Your task to perform on an android device: add a contact in the contacts app Image 0: 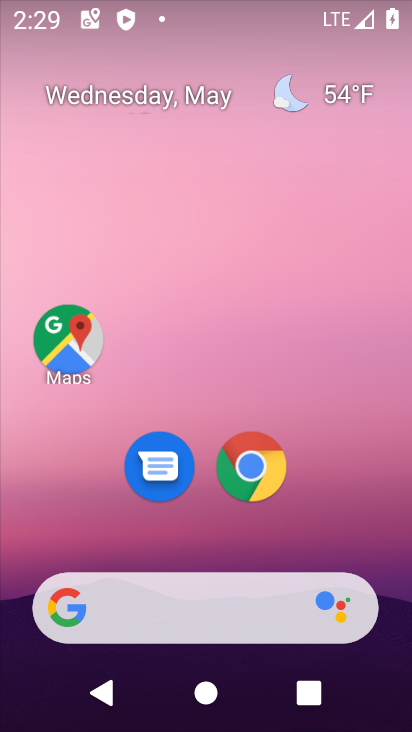
Step 0: drag from (375, 539) to (335, 261)
Your task to perform on an android device: add a contact in the contacts app Image 1: 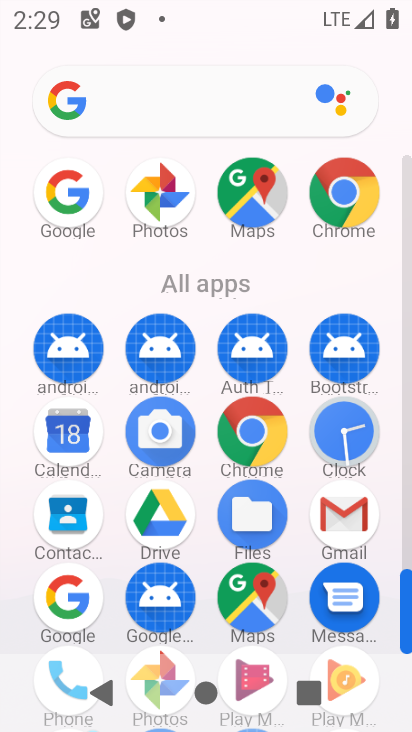
Step 1: click (73, 513)
Your task to perform on an android device: add a contact in the contacts app Image 2: 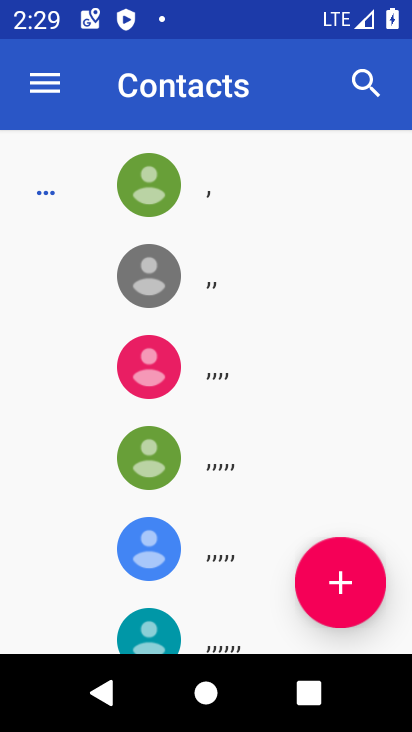
Step 2: click (351, 580)
Your task to perform on an android device: add a contact in the contacts app Image 3: 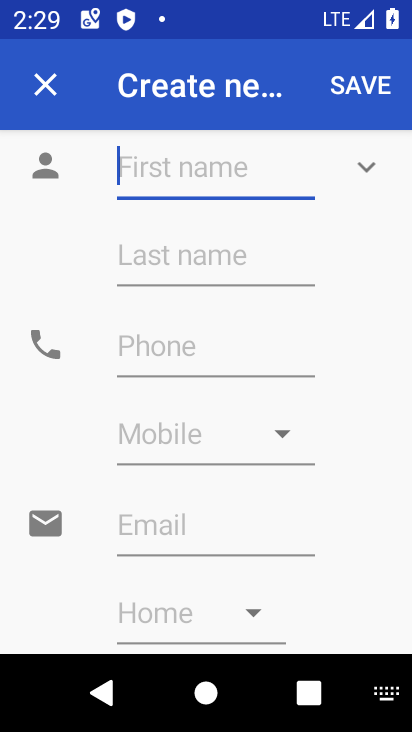
Step 3: type "mkmk"
Your task to perform on an android device: add a contact in the contacts app Image 4: 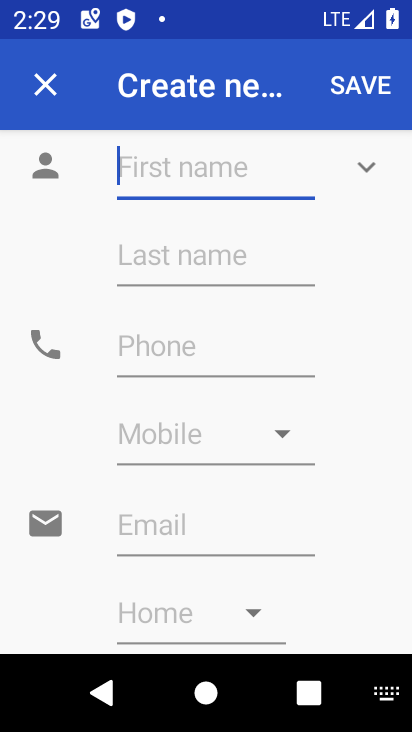
Step 4: click (280, 364)
Your task to perform on an android device: add a contact in the contacts app Image 5: 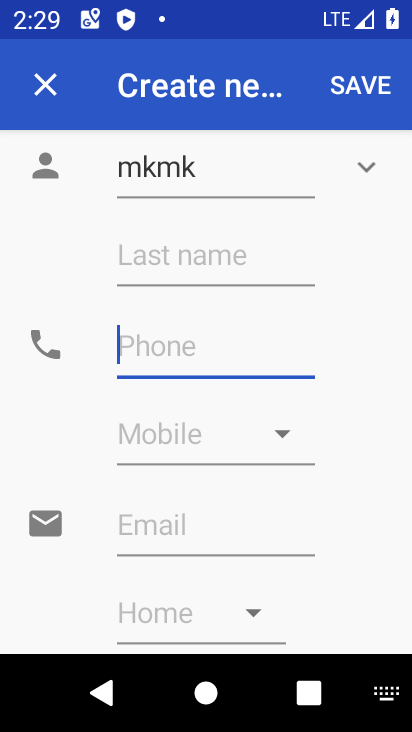
Step 5: type "u80880989"
Your task to perform on an android device: add a contact in the contacts app Image 6: 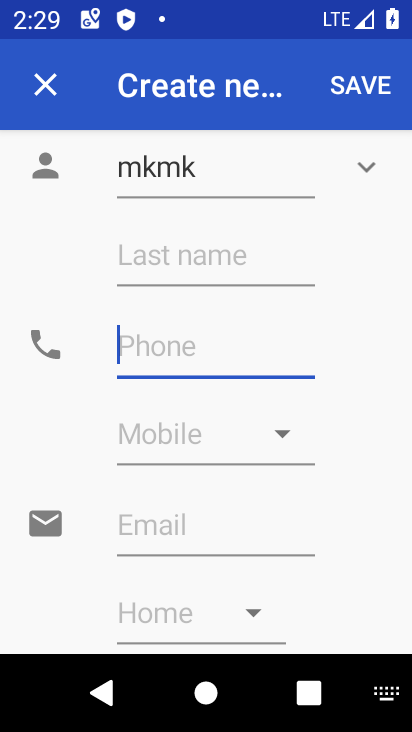
Step 6: click (401, 597)
Your task to perform on an android device: add a contact in the contacts app Image 7: 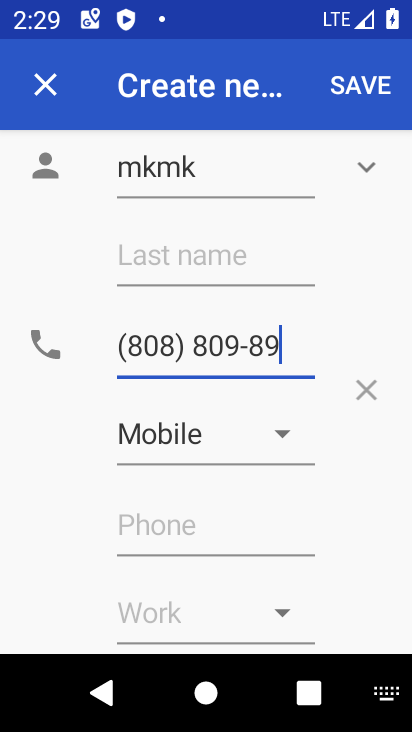
Step 7: click (376, 97)
Your task to perform on an android device: add a contact in the contacts app Image 8: 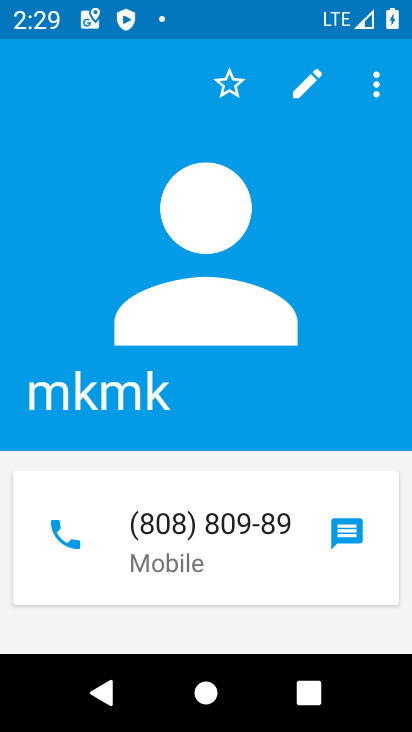
Step 8: task complete